Your task to perform on an android device: Open sound settings Image 0: 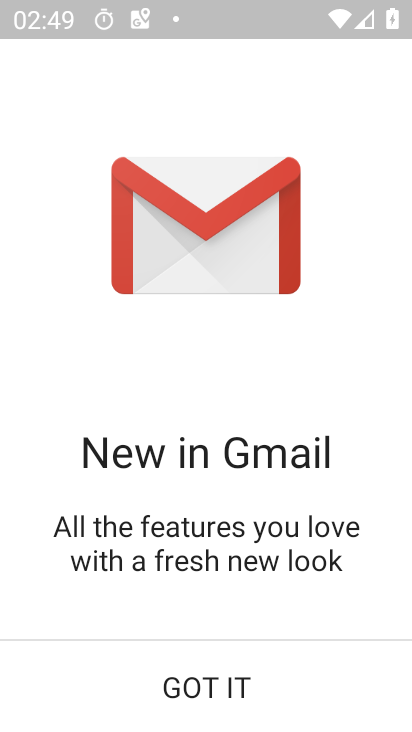
Step 0: press home button
Your task to perform on an android device: Open sound settings Image 1: 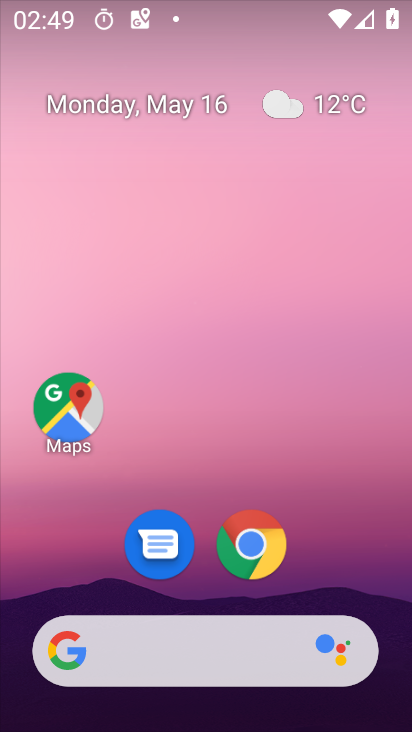
Step 1: drag from (216, 726) to (214, 285)
Your task to perform on an android device: Open sound settings Image 2: 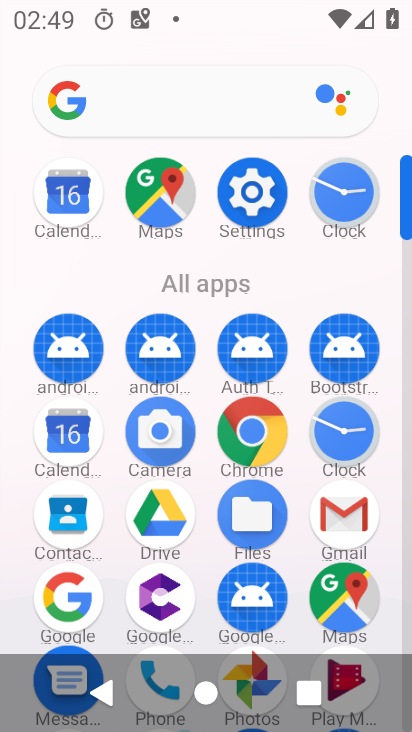
Step 2: click (252, 184)
Your task to perform on an android device: Open sound settings Image 3: 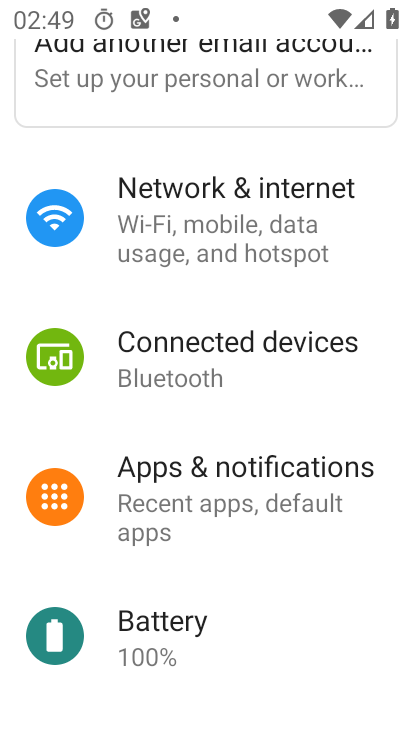
Step 3: drag from (223, 661) to (223, 184)
Your task to perform on an android device: Open sound settings Image 4: 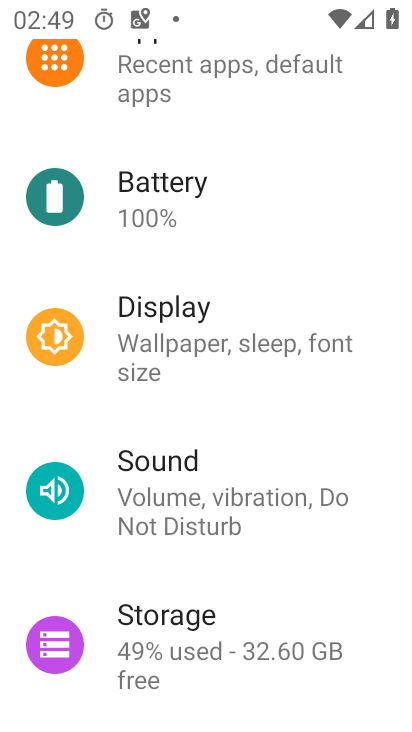
Step 4: click (156, 483)
Your task to perform on an android device: Open sound settings Image 5: 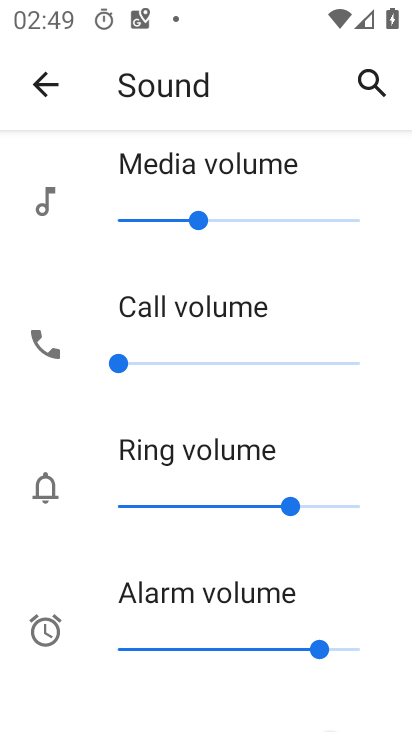
Step 5: task complete